Your task to perform on an android device: find snoozed emails in the gmail app Image 0: 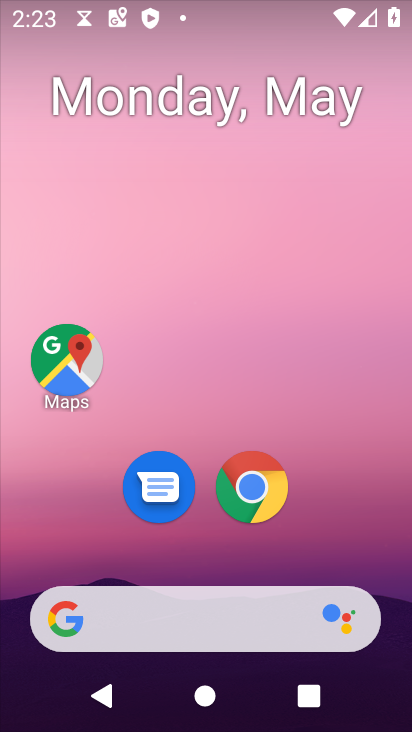
Step 0: drag from (393, 573) to (361, 146)
Your task to perform on an android device: find snoozed emails in the gmail app Image 1: 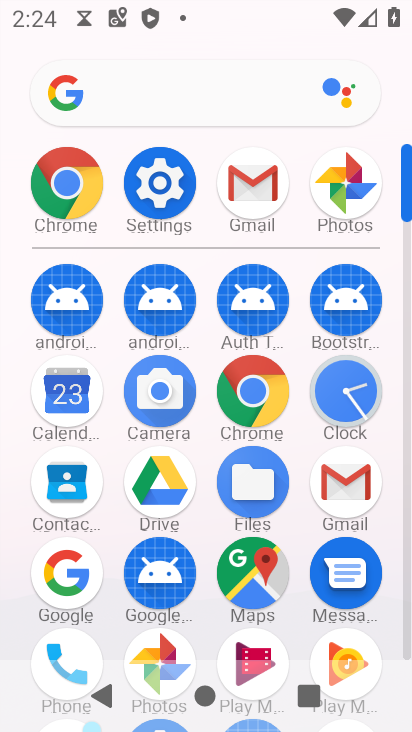
Step 1: click (263, 199)
Your task to perform on an android device: find snoozed emails in the gmail app Image 2: 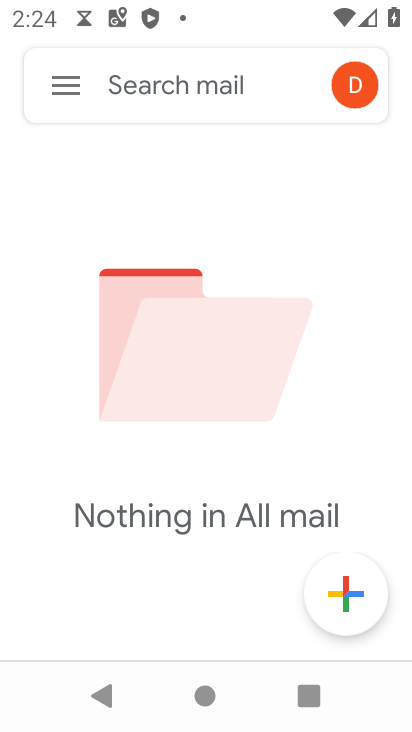
Step 2: click (76, 100)
Your task to perform on an android device: find snoozed emails in the gmail app Image 3: 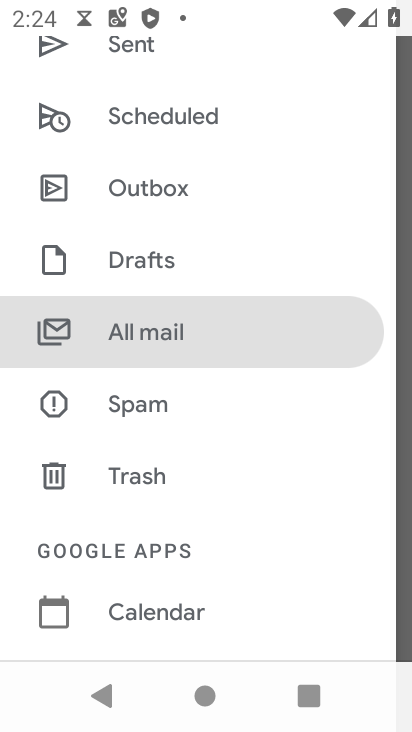
Step 3: drag from (213, 147) to (188, 579)
Your task to perform on an android device: find snoozed emails in the gmail app Image 4: 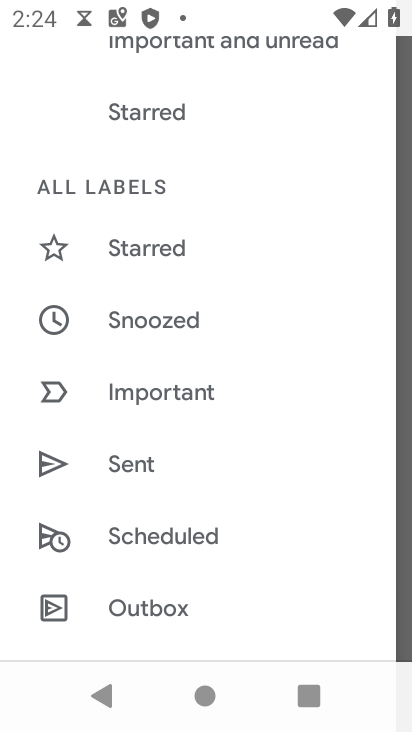
Step 4: click (175, 328)
Your task to perform on an android device: find snoozed emails in the gmail app Image 5: 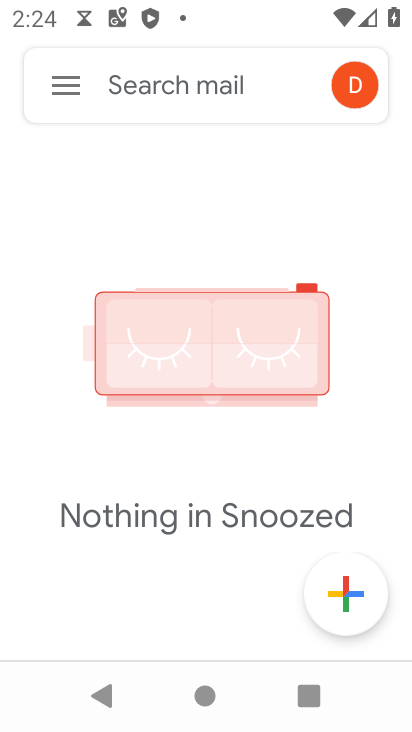
Step 5: task complete